Your task to perform on an android device: all mails in gmail Image 0: 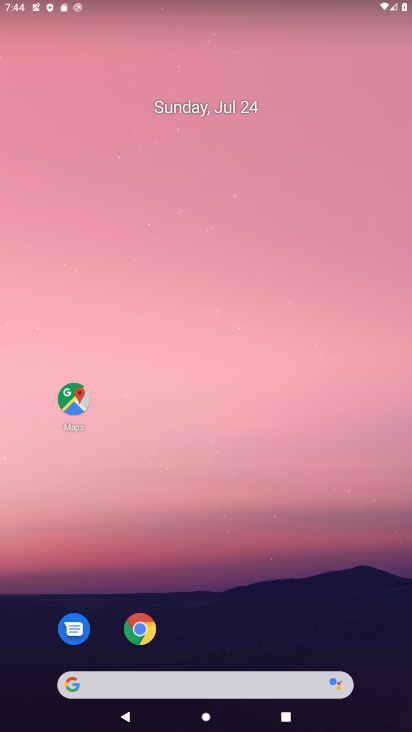
Step 0: press home button
Your task to perform on an android device: all mails in gmail Image 1: 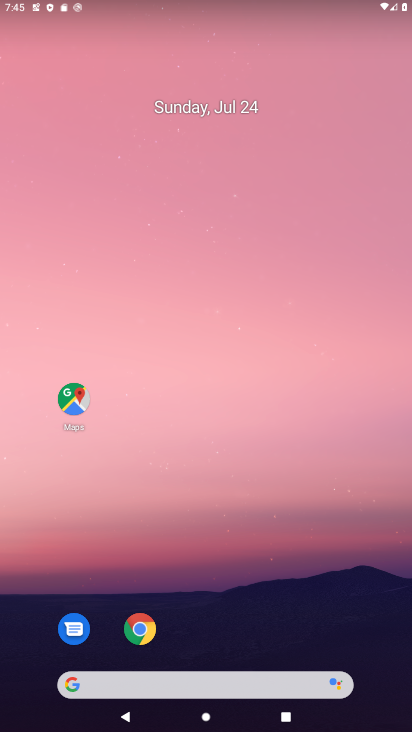
Step 1: drag from (380, 615) to (377, 77)
Your task to perform on an android device: all mails in gmail Image 2: 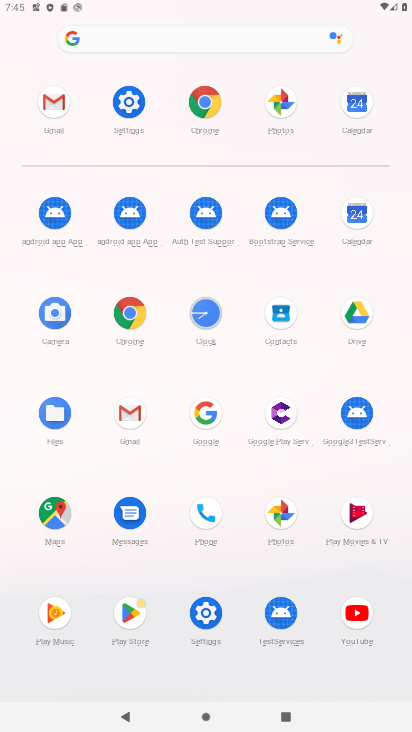
Step 2: click (130, 415)
Your task to perform on an android device: all mails in gmail Image 3: 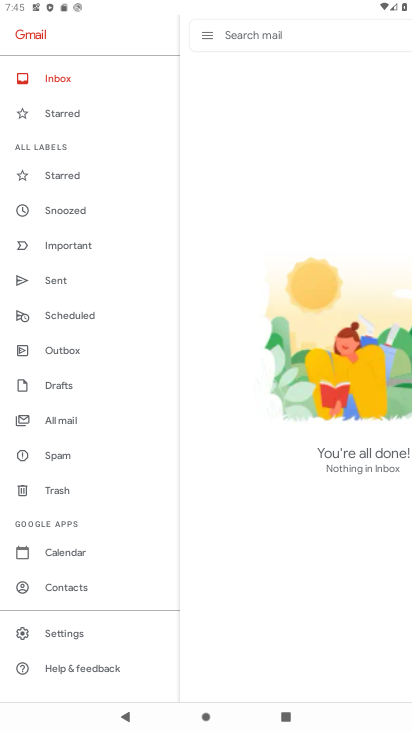
Step 3: drag from (135, 559) to (146, 408)
Your task to perform on an android device: all mails in gmail Image 4: 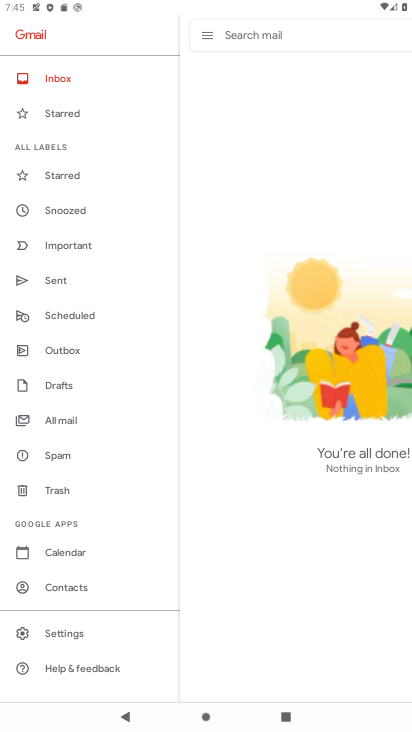
Step 4: drag from (146, 306) to (143, 446)
Your task to perform on an android device: all mails in gmail Image 5: 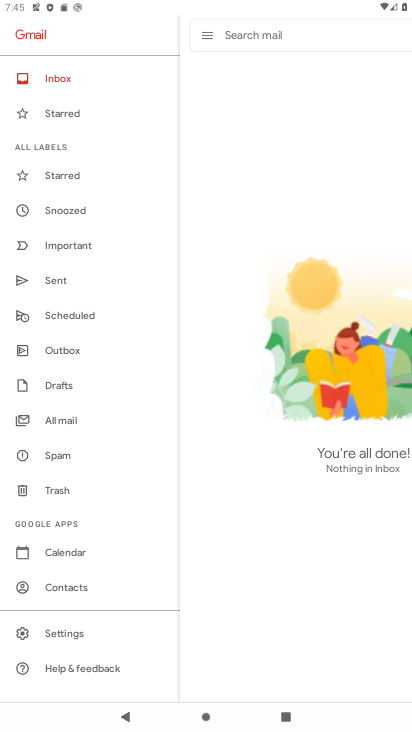
Step 5: click (77, 411)
Your task to perform on an android device: all mails in gmail Image 6: 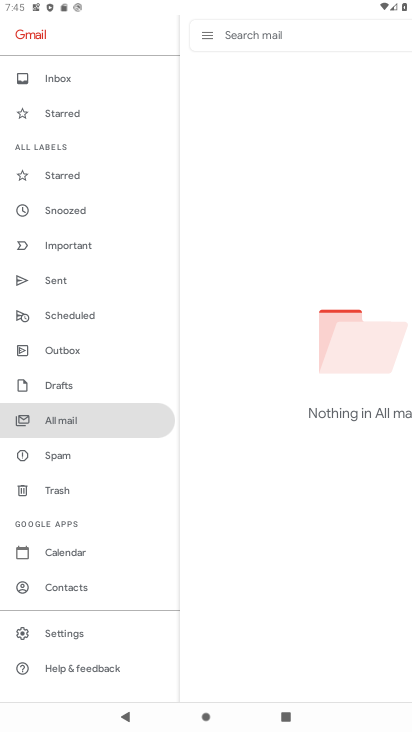
Step 6: task complete